Your task to perform on an android device: change alarm snooze length Image 0: 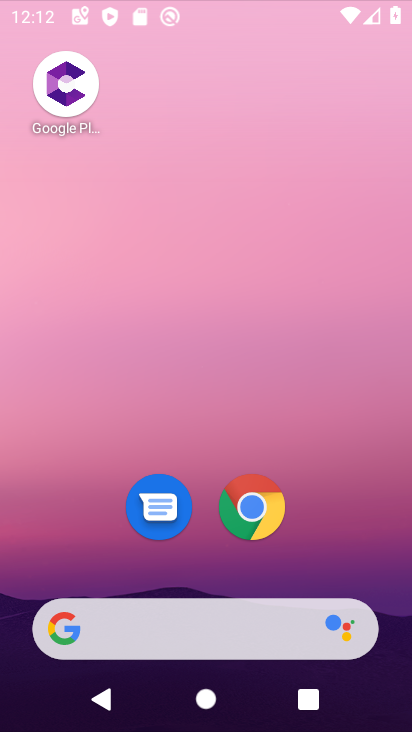
Step 0: click (59, 366)
Your task to perform on an android device: change alarm snooze length Image 1: 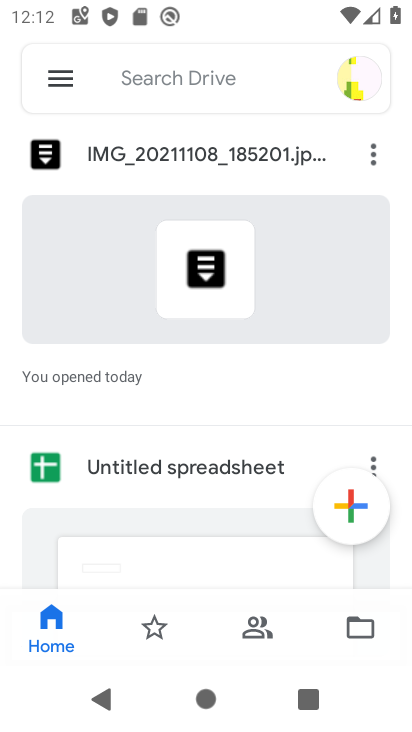
Step 1: press home button
Your task to perform on an android device: change alarm snooze length Image 2: 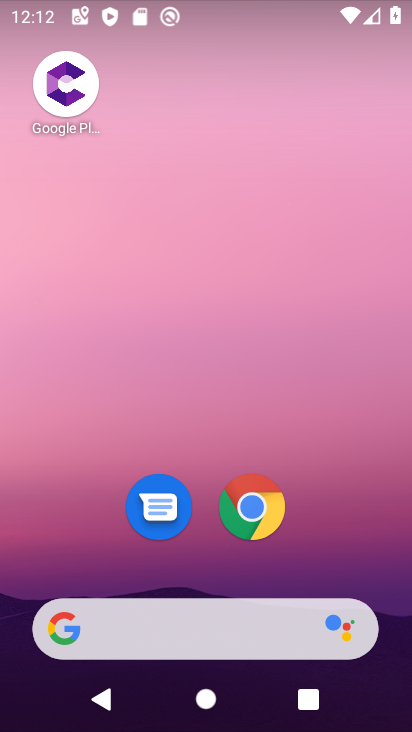
Step 2: drag from (215, 575) to (220, 159)
Your task to perform on an android device: change alarm snooze length Image 3: 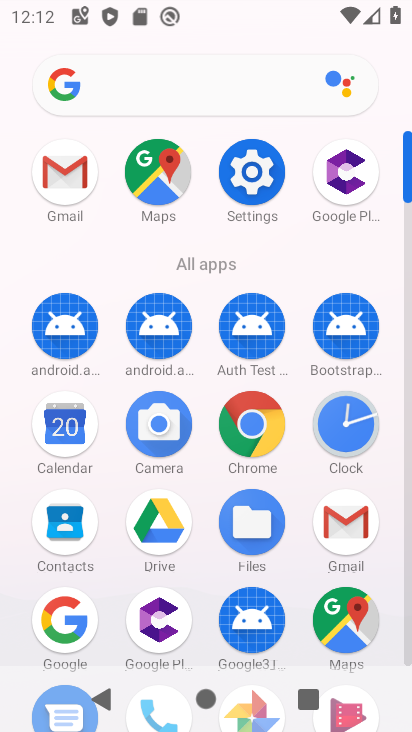
Step 3: click (337, 429)
Your task to perform on an android device: change alarm snooze length Image 4: 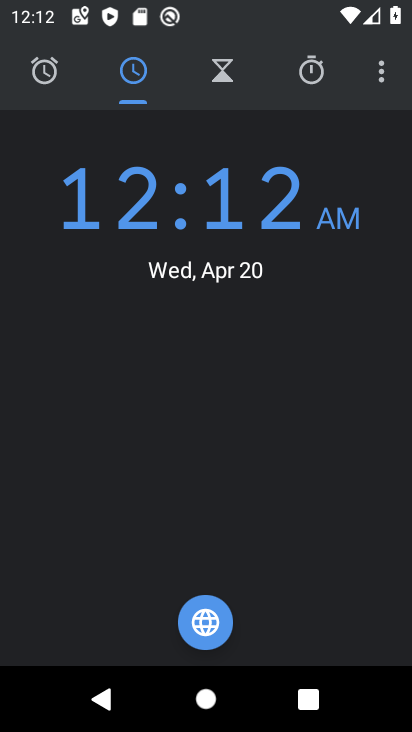
Step 4: click (376, 75)
Your task to perform on an android device: change alarm snooze length Image 5: 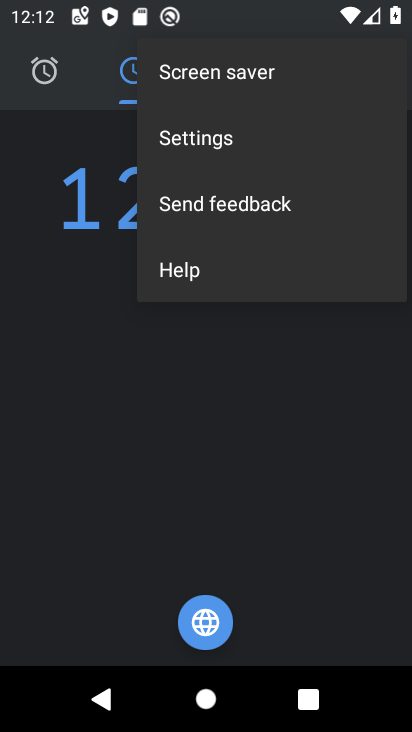
Step 5: click (246, 142)
Your task to perform on an android device: change alarm snooze length Image 6: 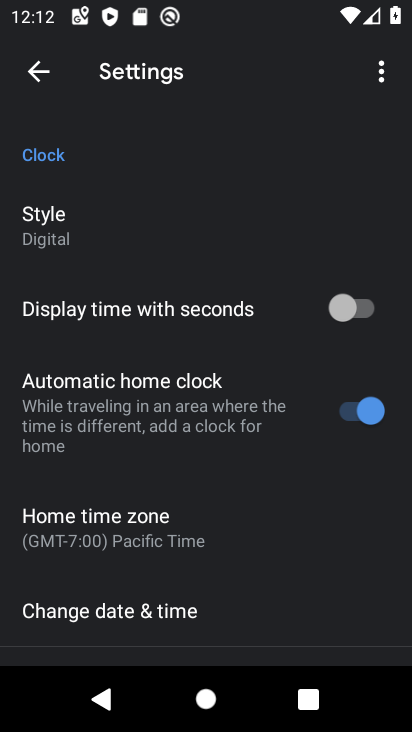
Step 6: drag from (150, 564) to (211, 225)
Your task to perform on an android device: change alarm snooze length Image 7: 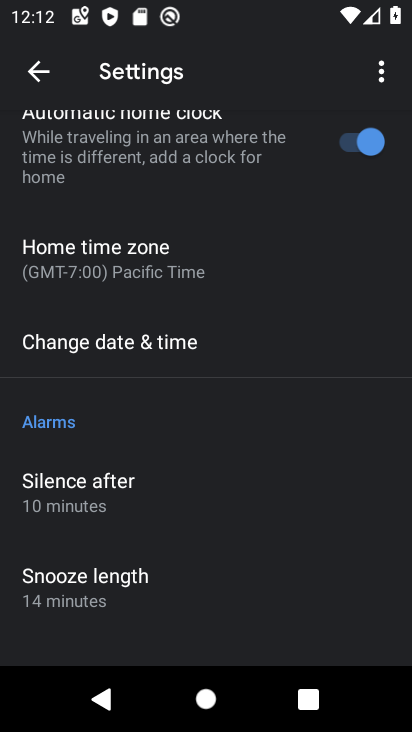
Step 7: click (127, 570)
Your task to perform on an android device: change alarm snooze length Image 8: 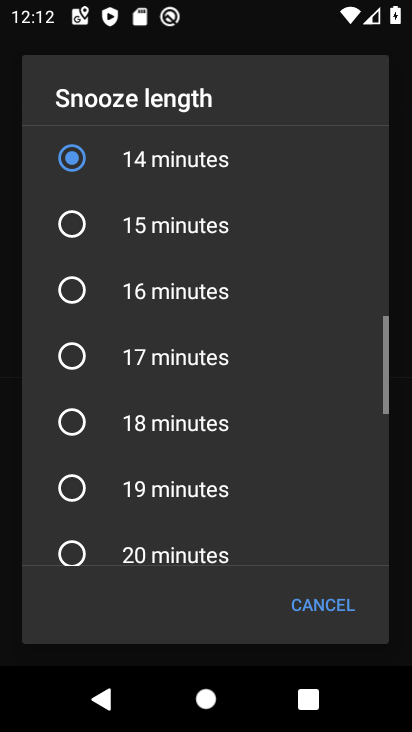
Step 8: click (164, 511)
Your task to perform on an android device: change alarm snooze length Image 9: 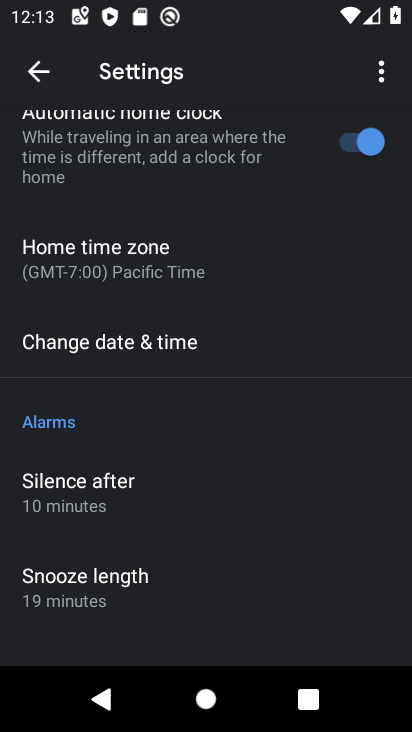
Step 9: task complete